Your task to perform on an android device: see tabs open on other devices in the chrome app Image 0: 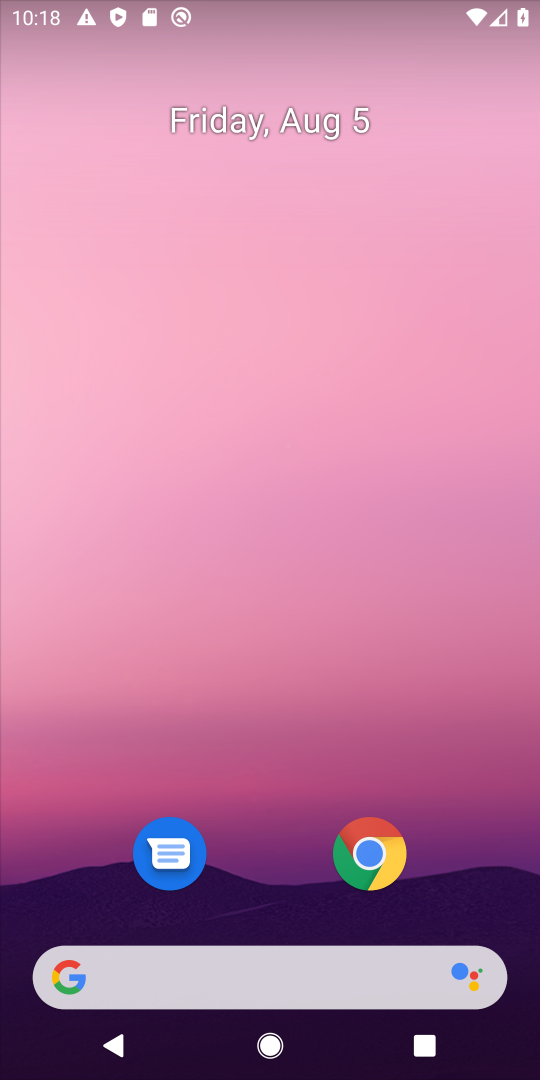
Step 0: click (369, 850)
Your task to perform on an android device: see tabs open on other devices in the chrome app Image 1: 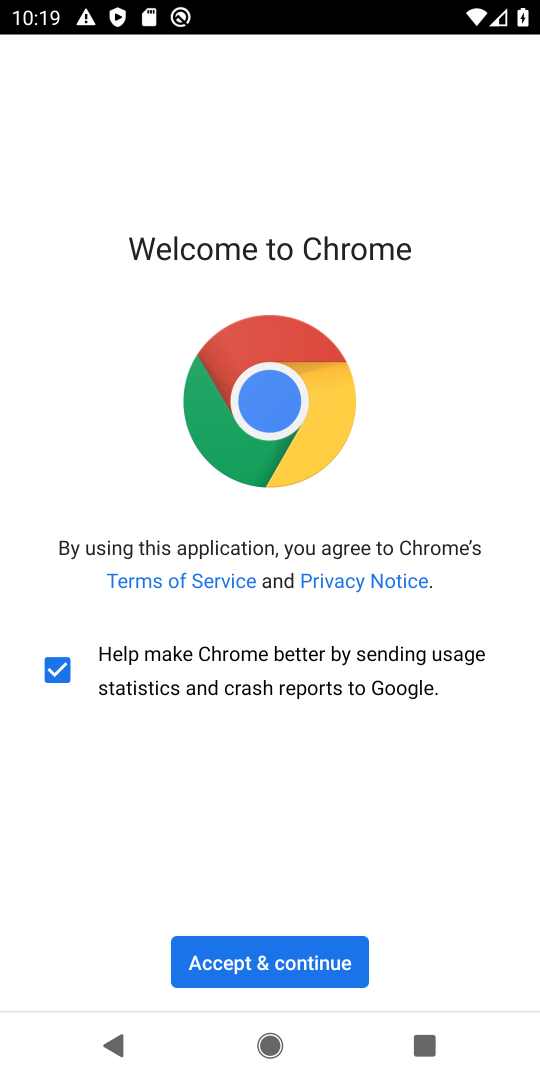
Step 1: click (290, 953)
Your task to perform on an android device: see tabs open on other devices in the chrome app Image 2: 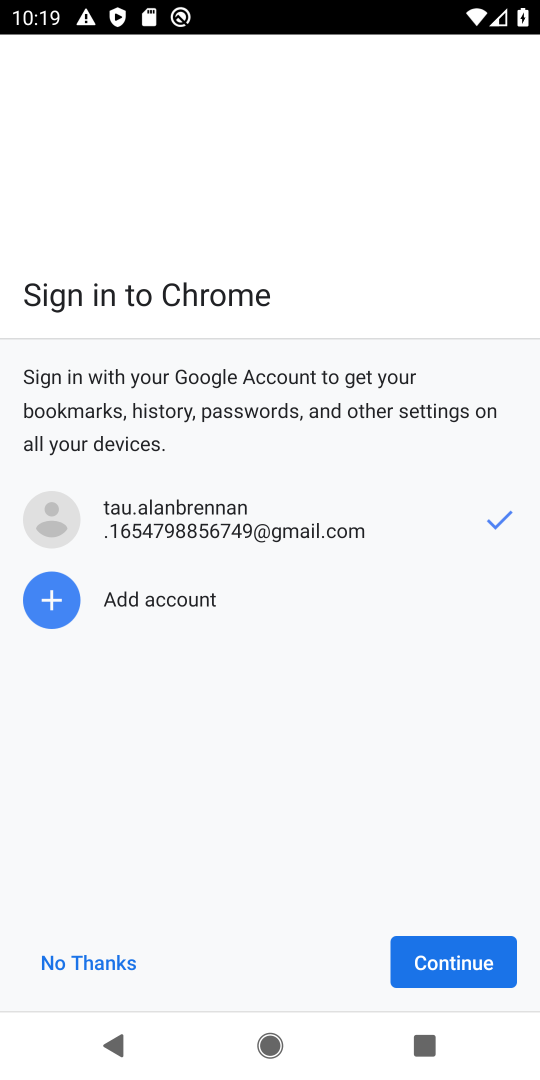
Step 2: click (443, 968)
Your task to perform on an android device: see tabs open on other devices in the chrome app Image 3: 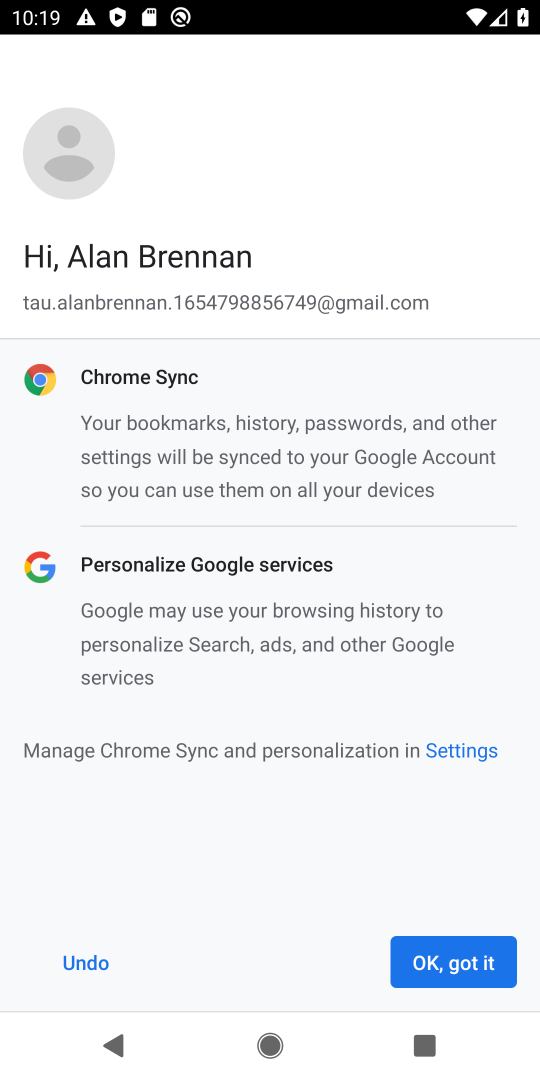
Step 3: click (443, 961)
Your task to perform on an android device: see tabs open on other devices in the chrome app Image 4: 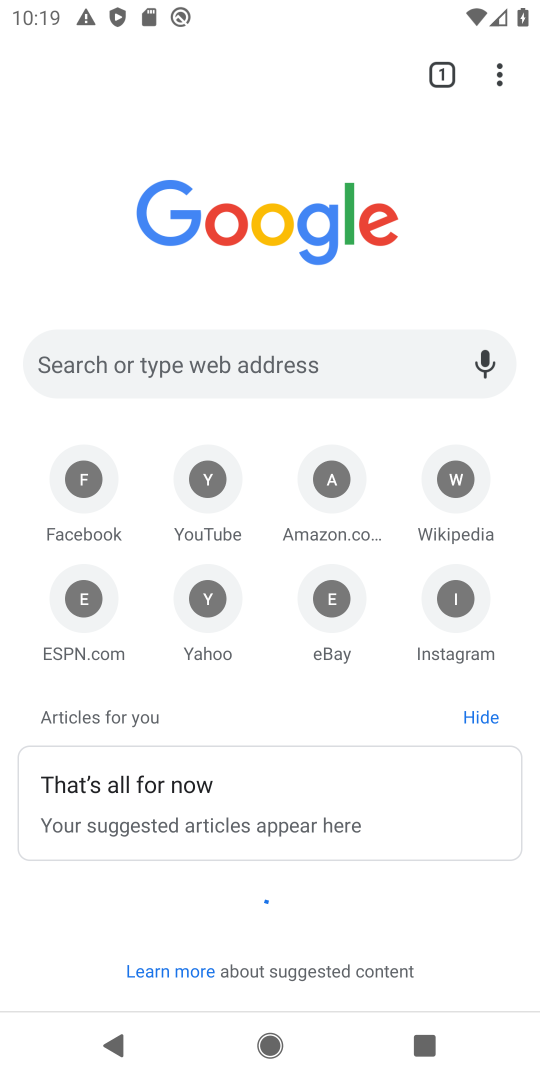
Step 4: click (497, 71)
Your task to perform on an android device: see tabs open on other devices in the chrome app Image 5: 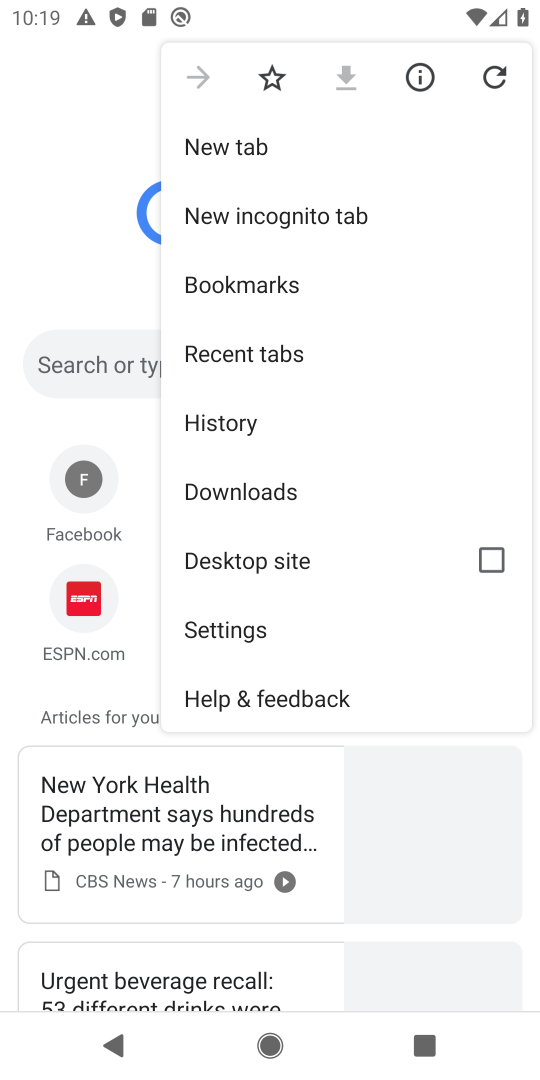
Step 5: click (295, 346)
Your task to perform on an android device: see tabs open on other devices in the chrome app Image 6: 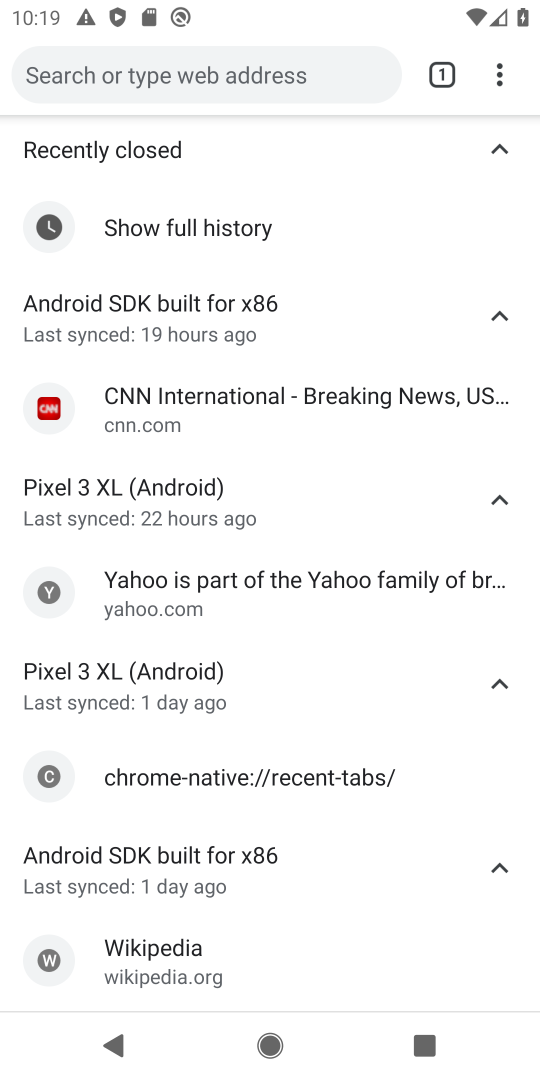
Step 6: task complete